Your task to perform on an android device: see creations saved in the google photos Image 0: 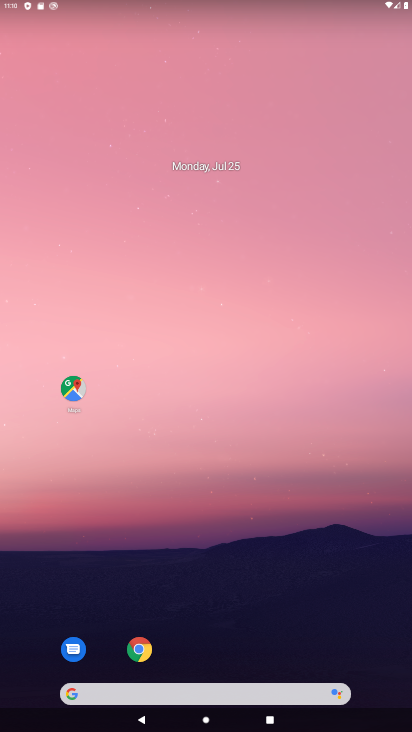
Step 0: drag from (174, 639) to (155, 178)
Your task to perform on an android device: see creations saved in the google photos Image 1: 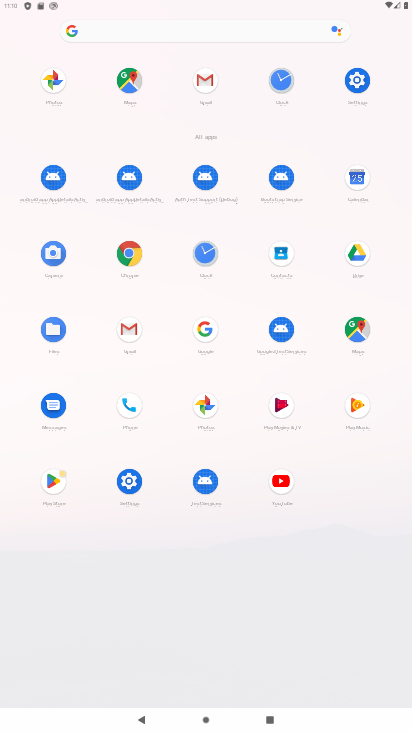
Step 1: click (203, 419)
Your task to perform on an android device: see creations saved in the google photos Image 2: 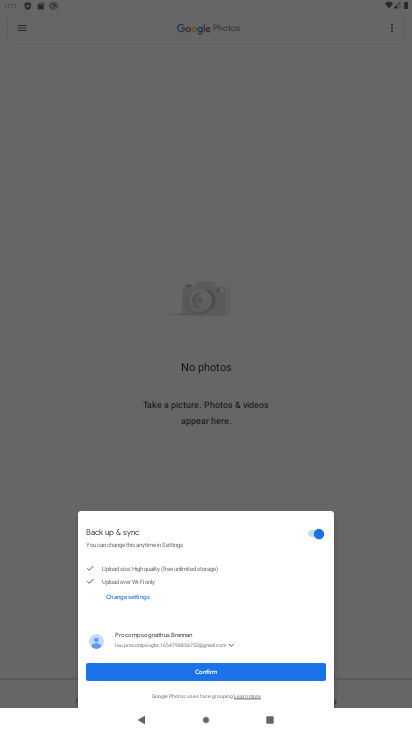
Step 2: click (212, 670)
Your task to perform on an android device: see creations saved in the google photos Image 3: 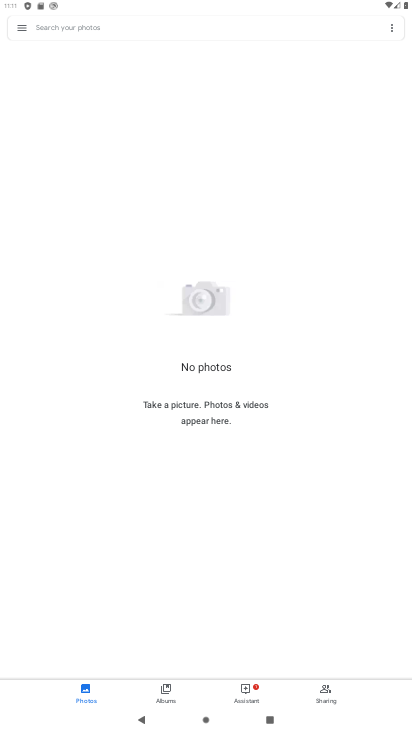
Step 3: click (115, 20)
Your task to perform on an android device: see creations saved in the google photos Image 4: 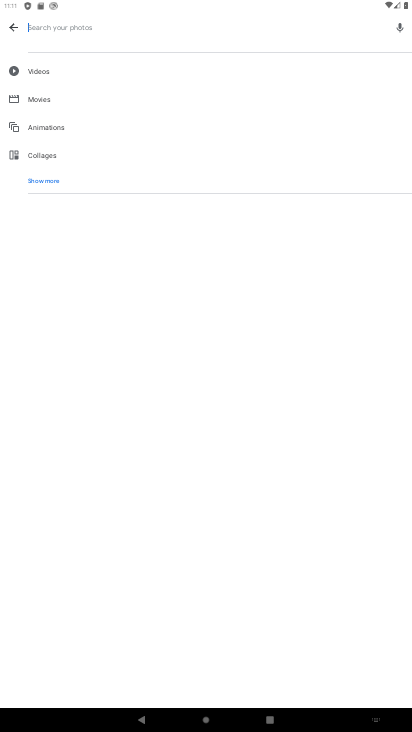
Step 4: click (41, 181)
Your task to perform on an android device: see creations saved in the google photos Image 5: 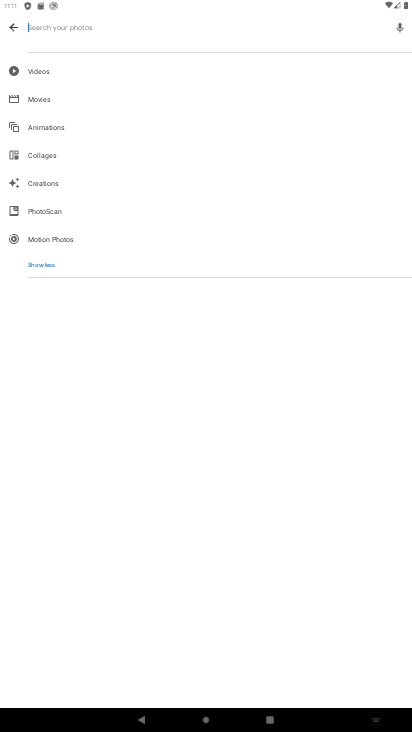
Step 5: click (39, 182)
Your task to perform on an android device: see creations saved in the google photos Image 6: 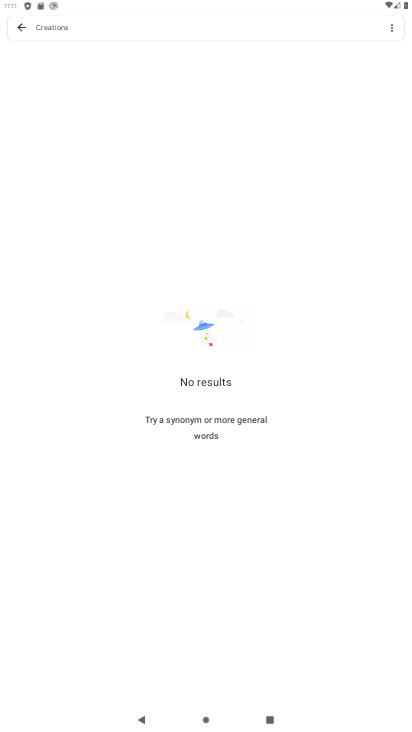
Step 6: task complete